Your task to perform on an android device: turn on airplane mode Image 0: 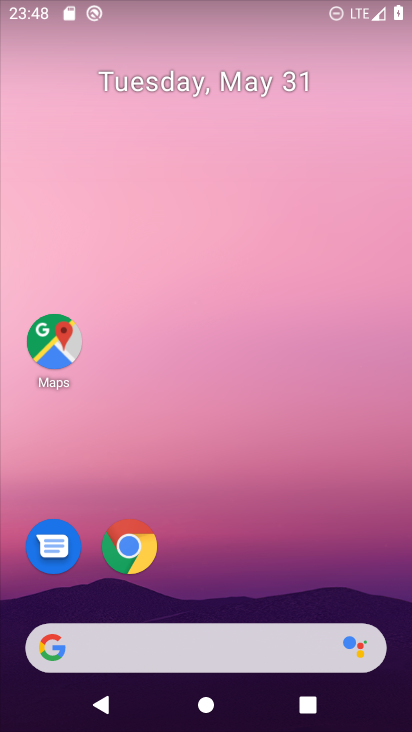
Step 0: drag from (410, 687) to (359, 148)
Your task to perform on an android device: turn on airplane mode Image 1: 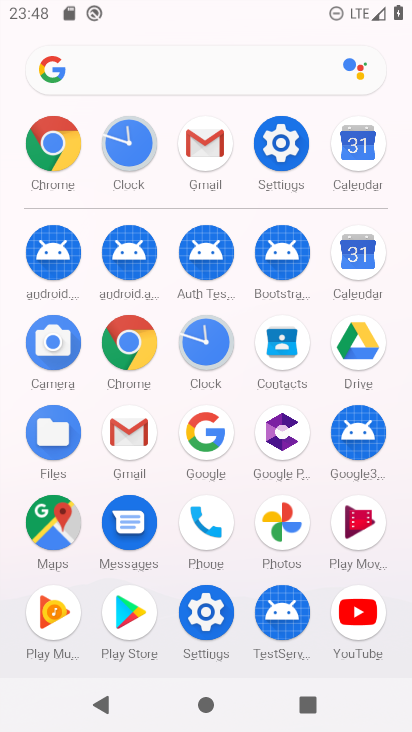
Step 1: click (280, 154)
Your task to perform on an android device: turn on airplane mode Image 2: 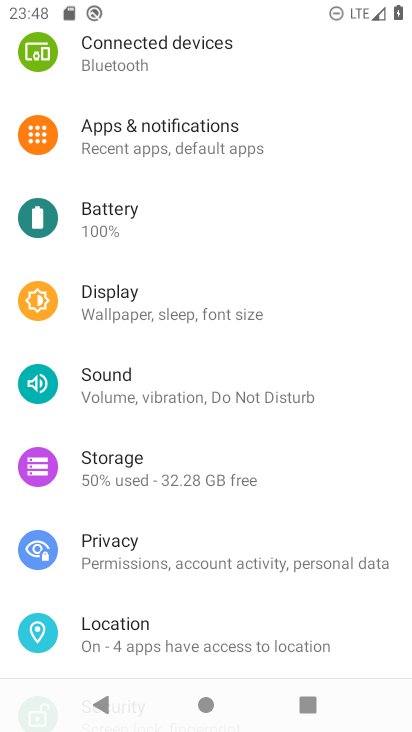
Step 2: drag from (260, 78) to (346, 471)
Your task to perform on an android device: turn on airplane mode Image 3: 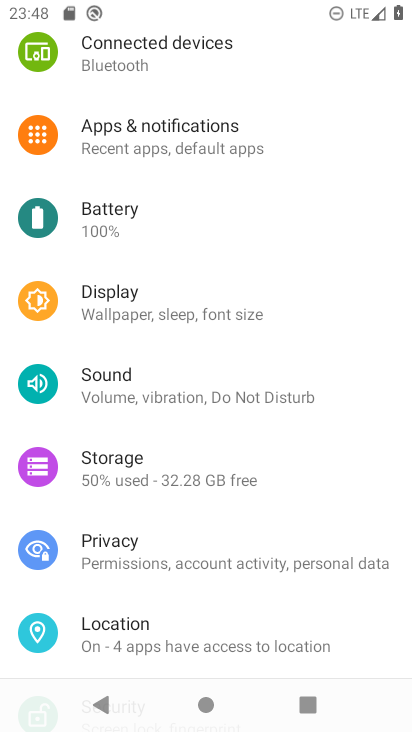
Step 3: drag from (302, 104) to (369, 443)
Your task to perform on an android device: turn on airplane mode Image 4: 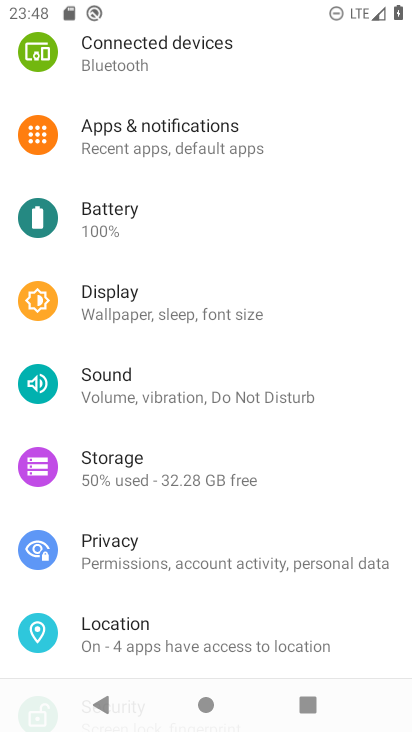
Step 4: drag from (303, 105) to (371, 542)
Your task to perform on an android device: turn on airplane mode Image 5: 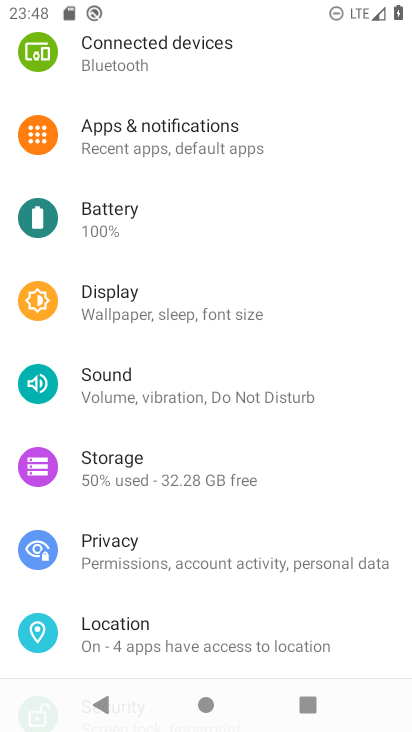
Step 5: drag from (357, 118) to (351, 473)
Your task to perform on an android device: turn on airplane mode Image 6: 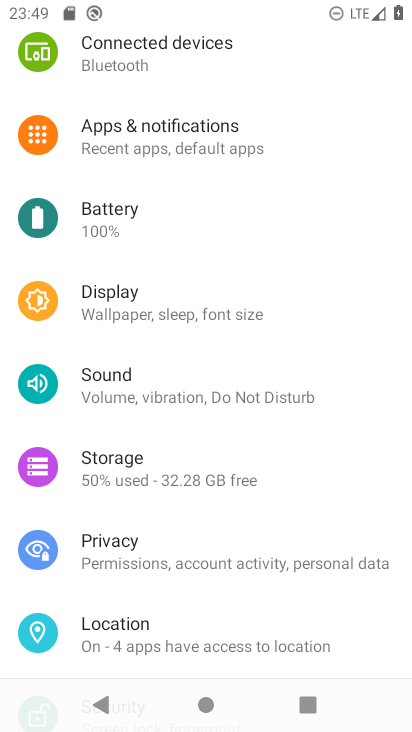
Step 6: drag from (304, 57) to (351, 383)
Your task to perform on an android device: turn on airplane mode Image 7: 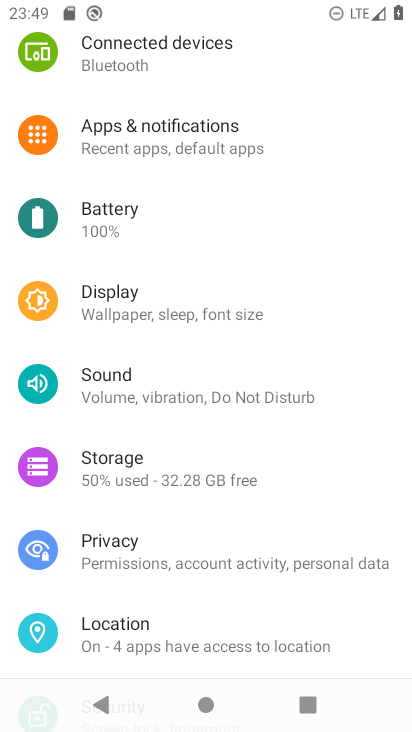
Step 7: drag from (266, 96) to (281, 398)
Your task to perform on an android device: turn on airplane mode Image 8: 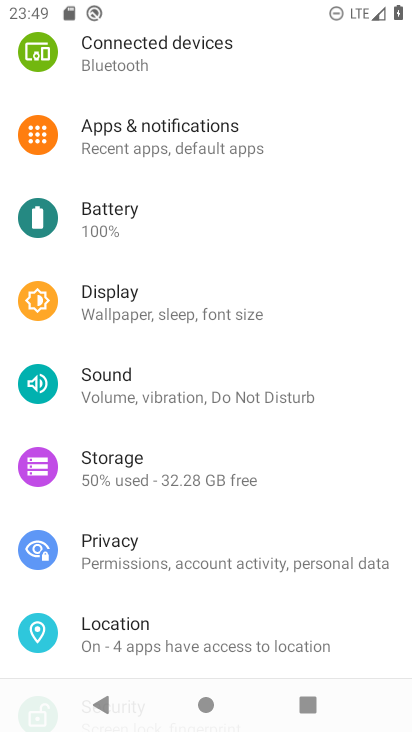
Step 8: drag from (297, 117) to (300, 556)
Your task to perform on an android device: turn on airplane mode Image 9: 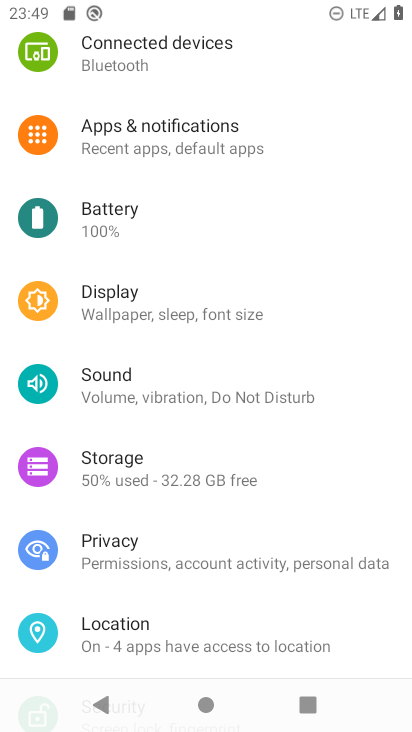
Step 9: press back button
Your task to perform on an android device: turn on airplane mode Image 10: 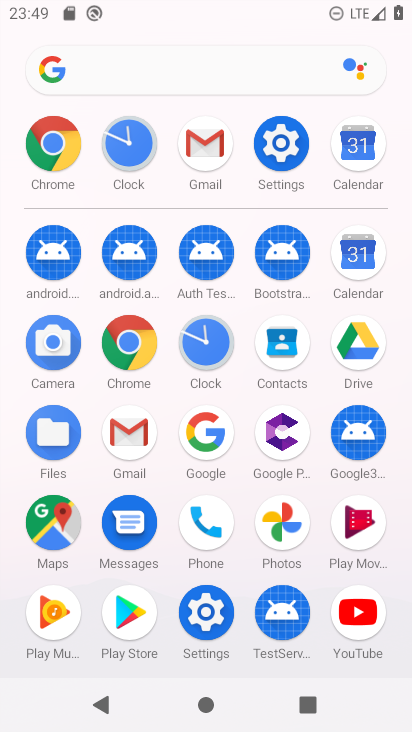
Step 10: click (278, 162)
Your task to perform on an android device: turn on airplane mode Image 11: 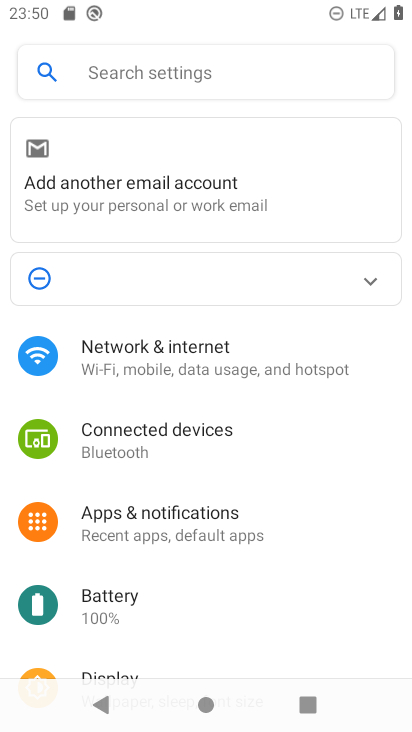
Step 11: click (143, 351)
Your task to perform on an android device: turn on airplane mode Image 12: 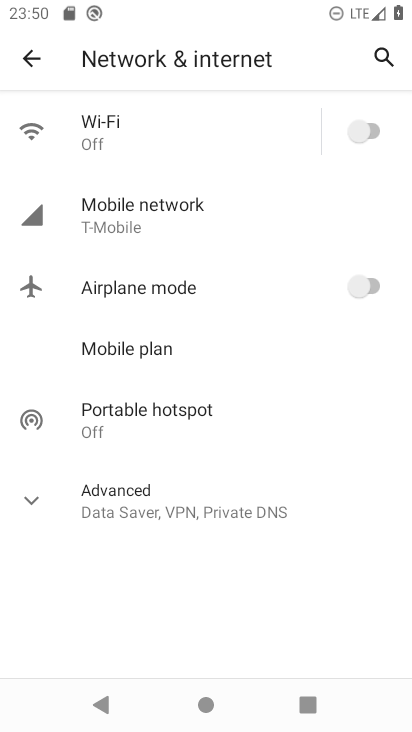
Step 12: click (378, 289)
Your task to perform on an android device: turn on airplane mode Image 13: 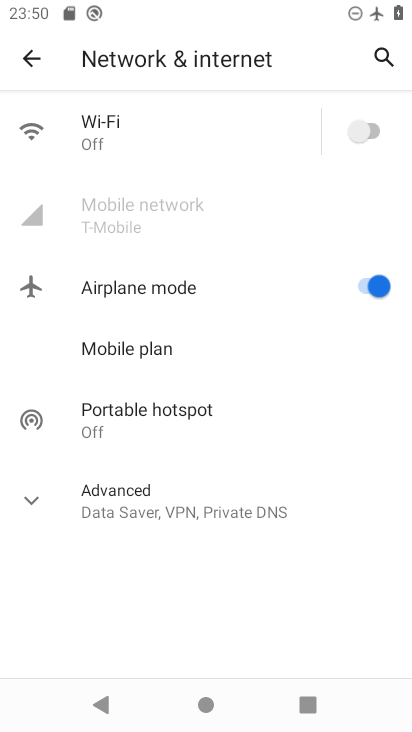
Step 13: click (371, 127)
Your task to perform on an android device: turn on airplane mode Image 14: 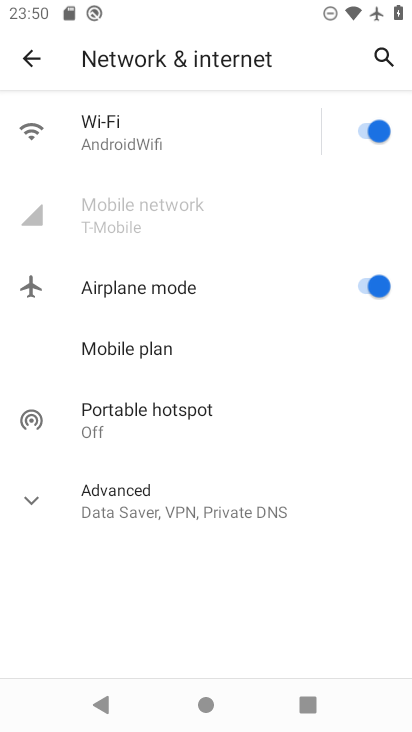
Step 14: click (370, 127)
Your task to perform on an android device: turn on airplane mode Image 15: 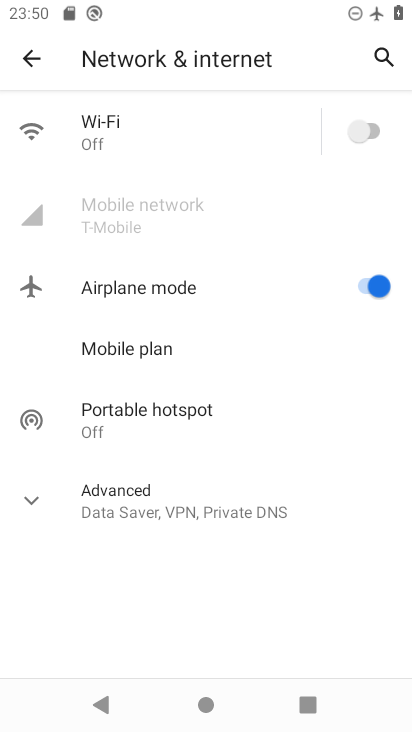
Step 15: task complete